Your task to perform on an android device: Open the calendar and show me this week's events Image 0: 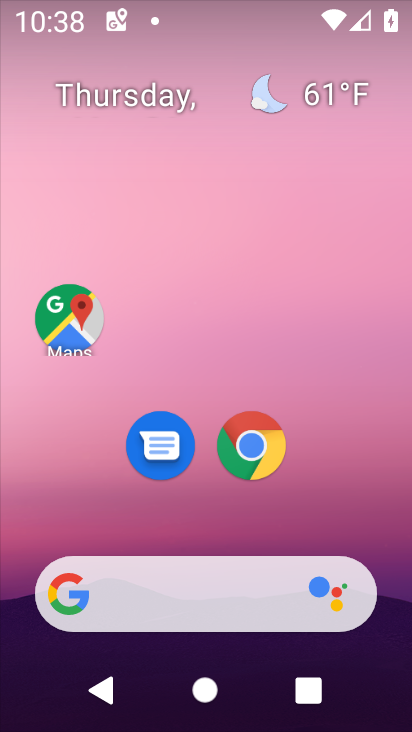
Step 0: drag from (177, 519) to (184, 1)
Your task to perform on an android device: Open the calendar and show me this week's events Image 1: 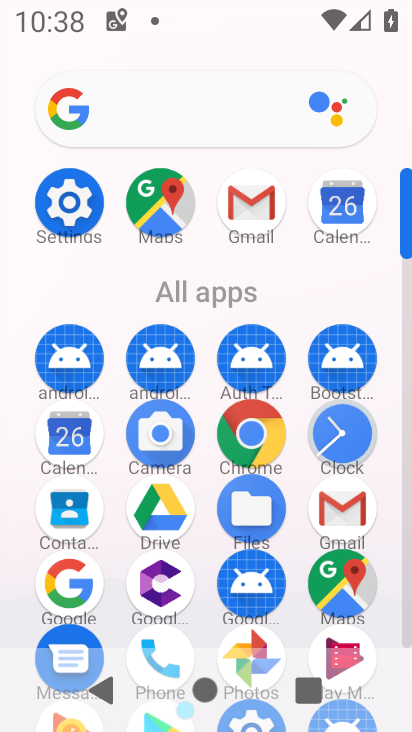
Step 1: click (351, 207)
Your task to perform on an android device: Open the calendar and show me this week's events Image 2: 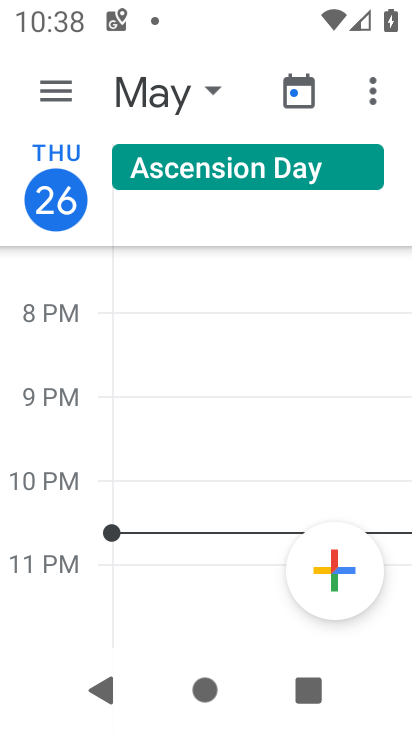
Step 2: click (60, 97)
Your task to perform on an android device: Open the calendar and show me this week's events Image 3: 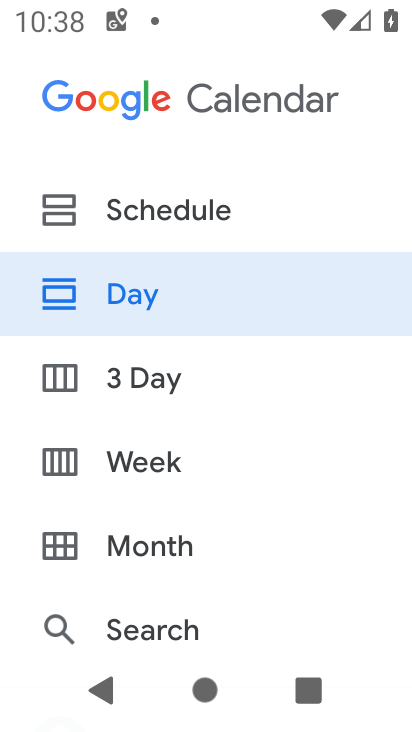
Step 3: click (133, 208)
Your task to perform on an android device: Open the calendar and show me this week's events Image 4: 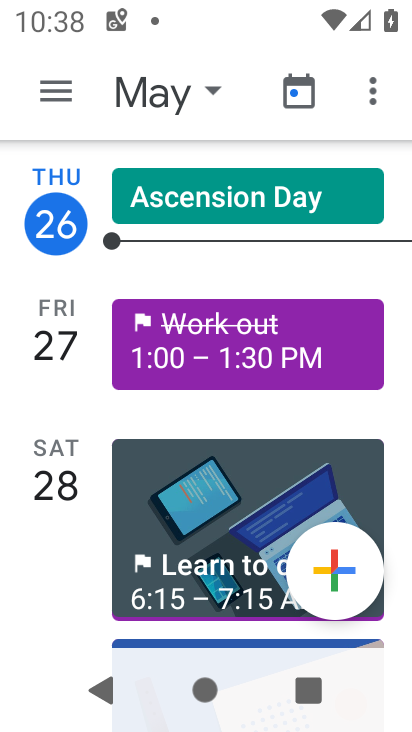
Step 4: click (164, 95)
Your task to perform on an android device: Open the calendar and show me this week's events Image 5: 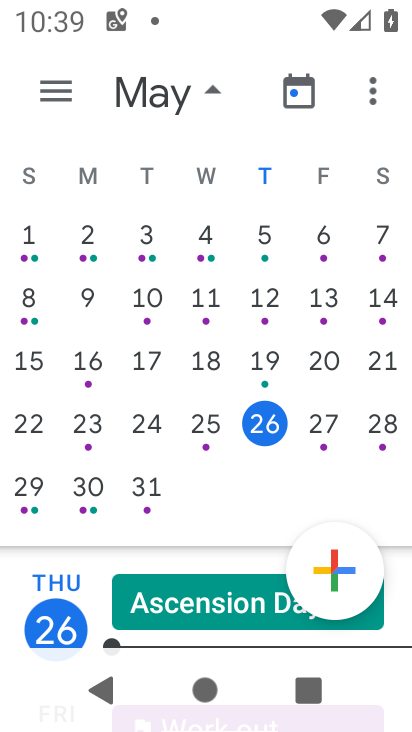
Step 5: click (264, 425)
Your task to perform on an android device: Open the calendar and show me this week's events Image 6: 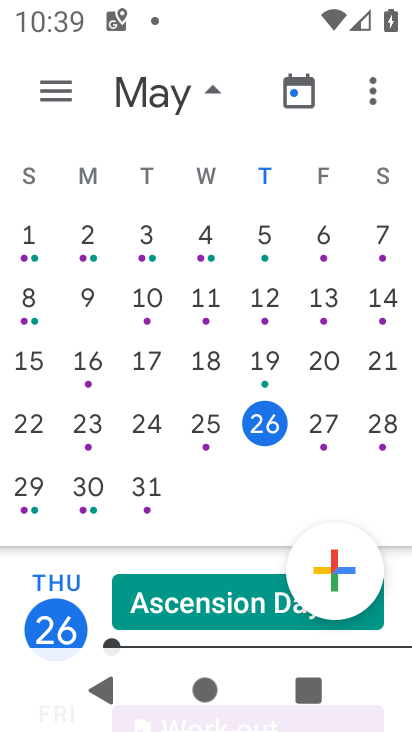
Step 6: task complete